Your task to perform on an android device: What's the weather today? Image 0: 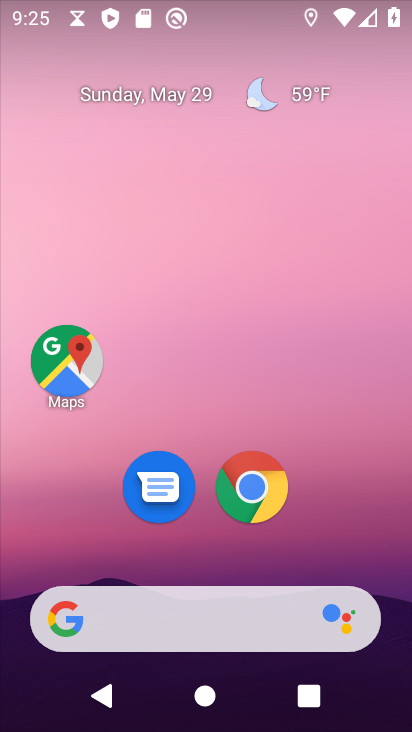
Step 0: drag from (325, 552) to (289, 39)
Your task to perform on an android device: What's the weather today? Image 1: 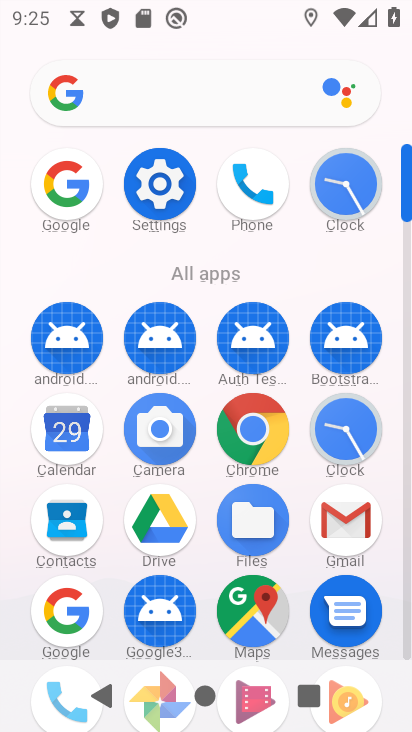
Step 1: click (61, 181)
Your task to perform on an android device: What's the weather today? Image 2: 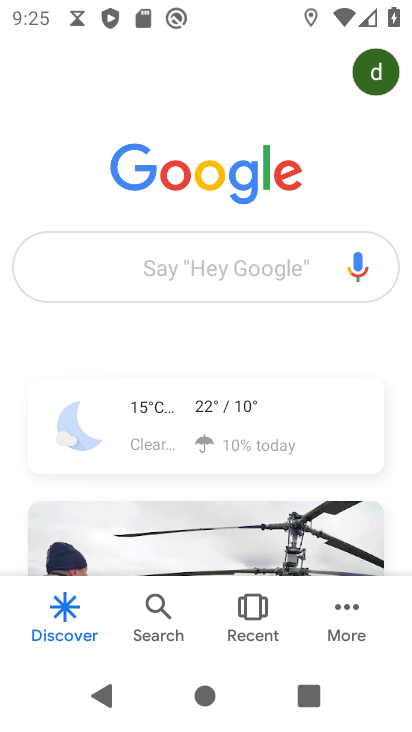
Step 2: click (209, 417)
Your task to perform on an android device: What's the weather today? Image 3: 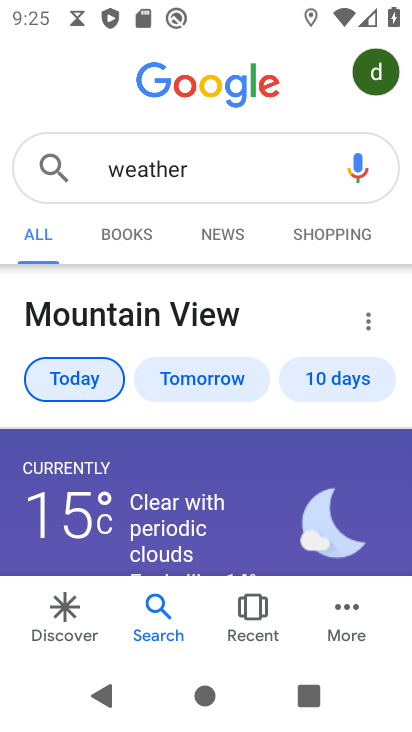
Step 3: task complete